Your task to perform on an android device: delete browsing data in the chrome app Image 0: 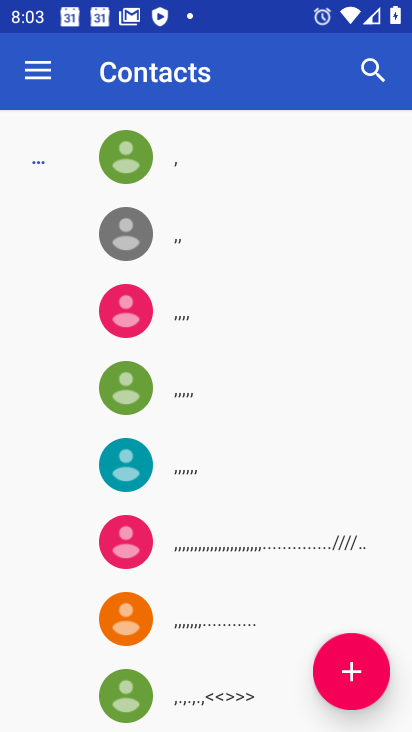
Step 0: press home button
Your task to perform on an android device: delete browsing data in the chrome app Image 1: 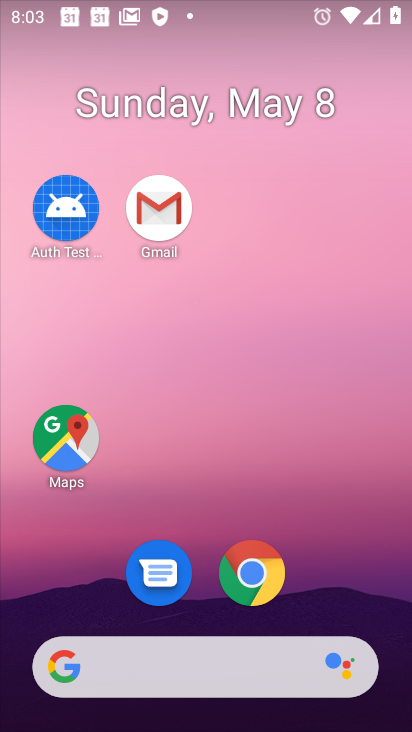
Step 1: drag from (282, 484) to (103, 62)
Your task to perform on an android device: delete browsing data in the chrome app Image 2: 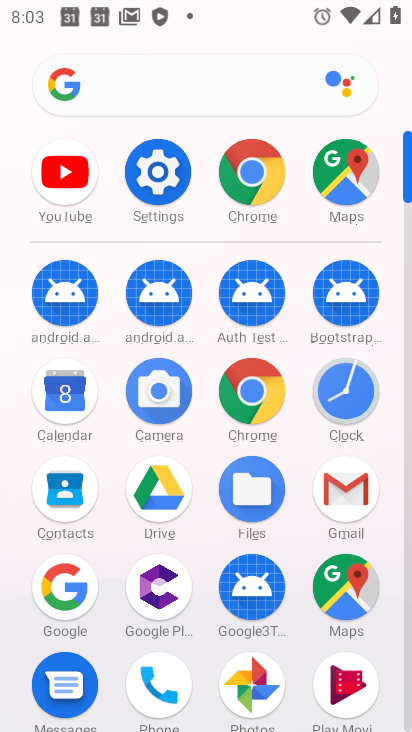
Step 2: click (259, 187)
Your task to perform on an android device: delete browsing data in the chrome app Image 3: 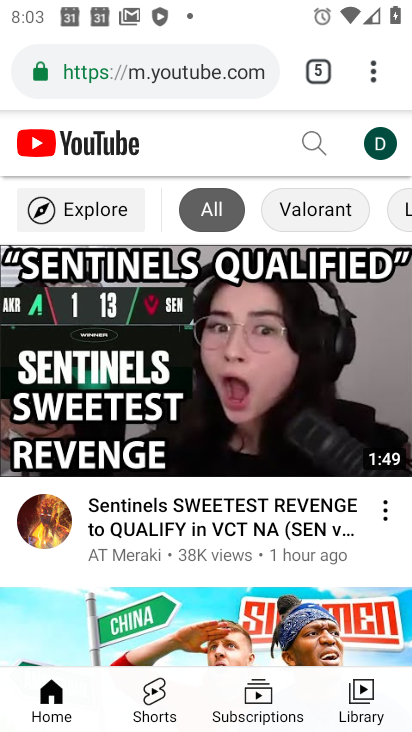
Step 3: click (366, 66)
Your task to perform on an android device: delete browsing data in the chrome app Image 4: 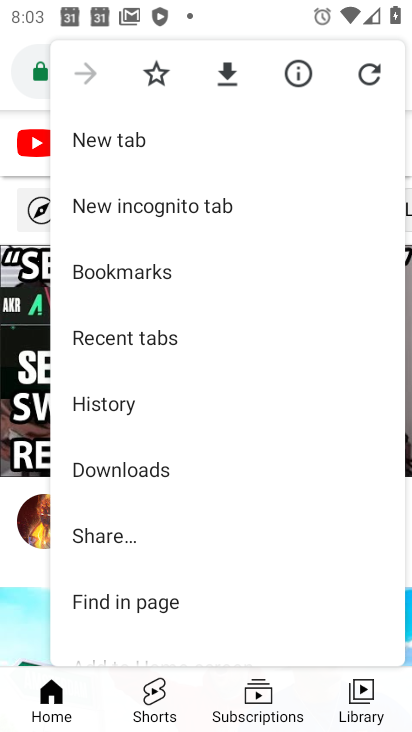
Step 4: click (115, 401)
Your task to perform on an android device: delete browsing data in the chrome app Image 5: 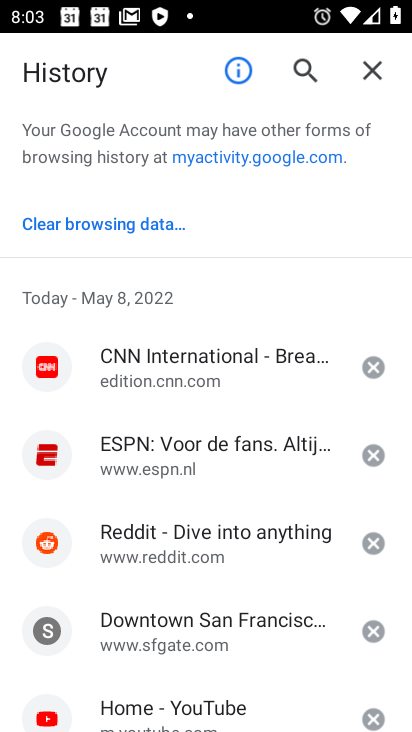
Step 5: click (366, 364)
Your task to perform on an android device: delete browsing data in the chrome app Image 6: 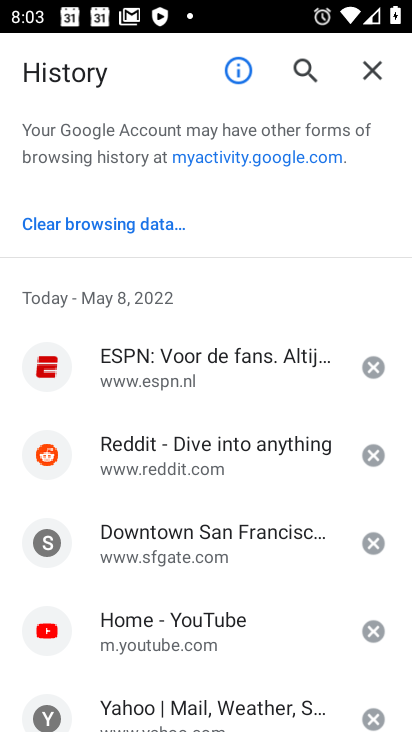
Step 6: task complete